Your task to perform on an android device: Open sound settings Image 0: 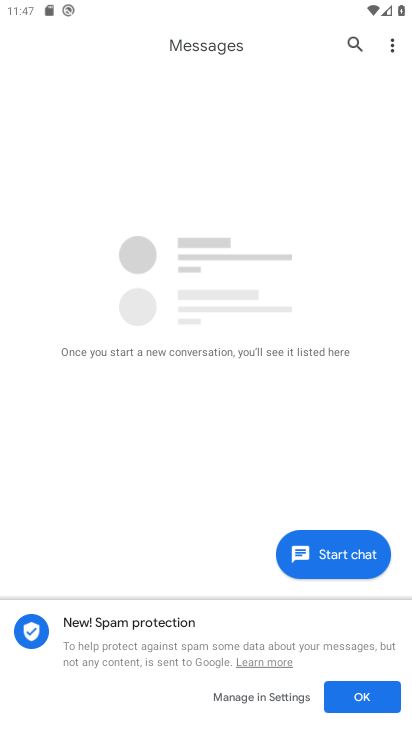
Step 0: drag from (105, 366) to (163, 248)
Your task to perform on an android device: Open sound settings Image 1: 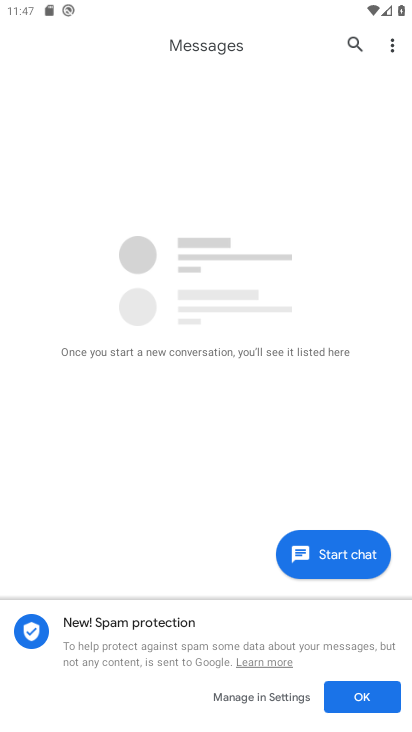
Step 1: press home button
Your task to perform on an android device: Open sound settings Image 2: 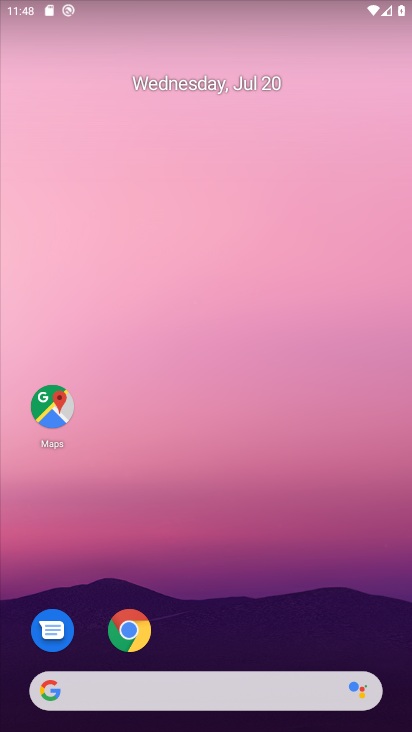
Step 2: drag from (185, 648) to (192, 101)
Your task to perform on an android device: Open sound settings Image 3: 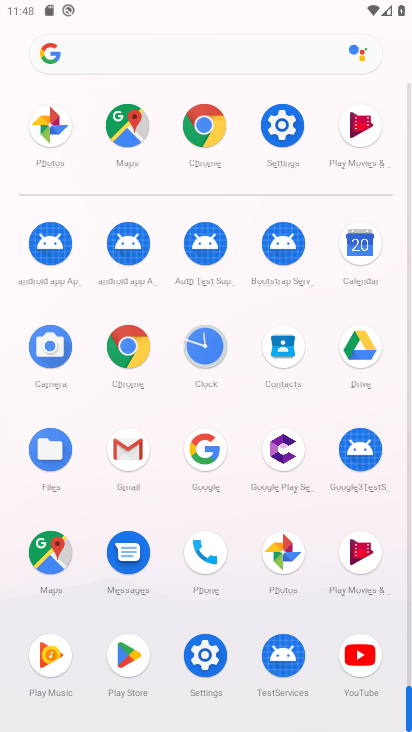
Step 3: click (198, 656)
Your task to perform on an android device: Open sound settings Image 4: 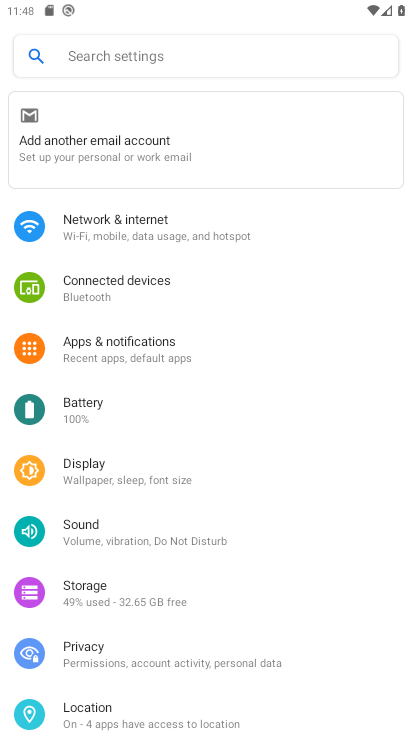
Step 4: click (101, 535)
Your task to perform on an android device: Open sound settings Image 5: 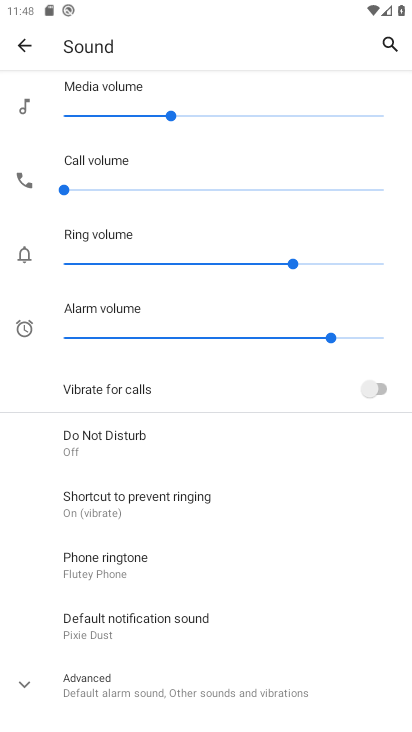
Step 5: task complete